Your task to perform on an android device: star an email in the gmail app Image 0: 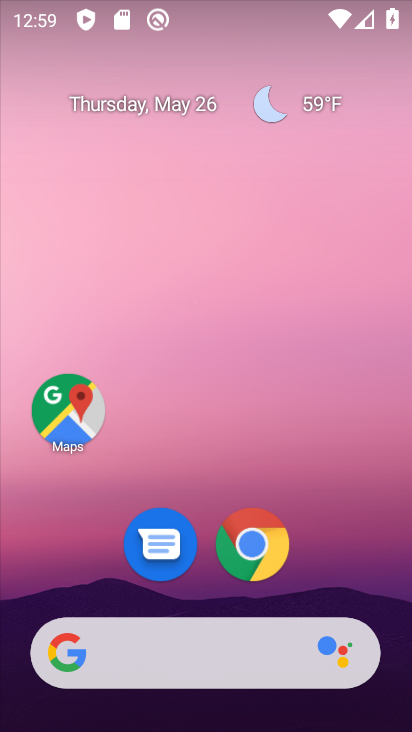
Step 0: drag from (188, 600) to (227, 233)
Your task to perform on an android device: star an email in the gmail app Image 1: 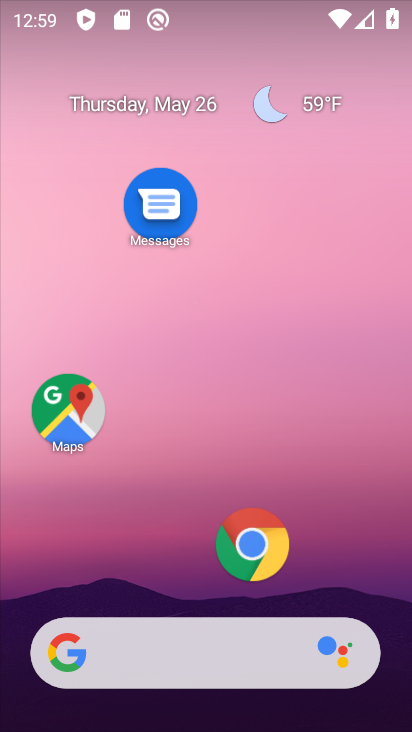
Step 1: drag from (160, 581) to (219, 224)
Your task to perform on an android device: star an email in the gmail app Image 2: 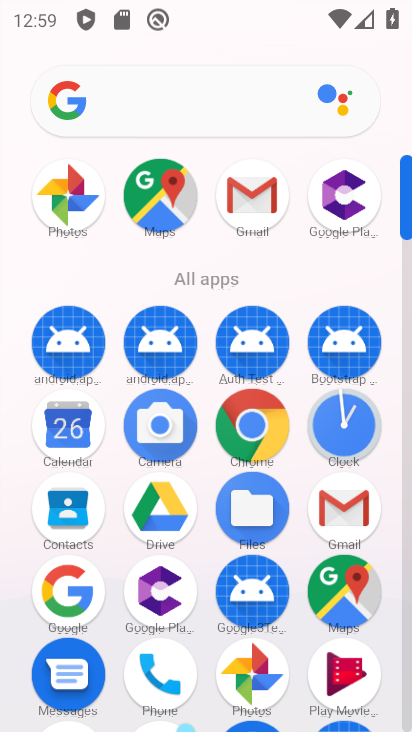
Step 2: click (257, 190)
Your task to perform on an android device: star an email in the gmail app Image 3: 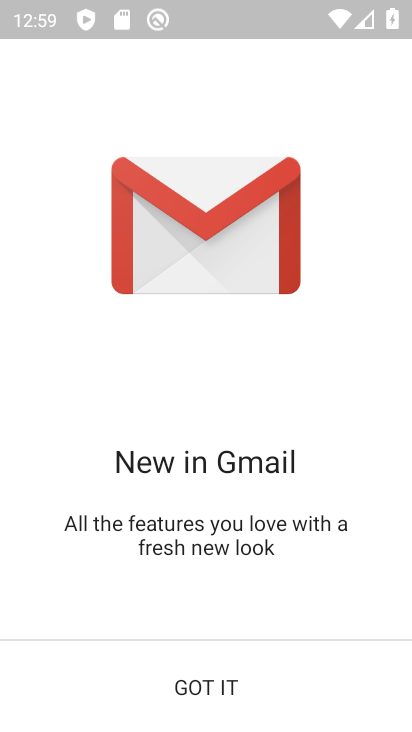
Step 3: click (257, 727)
Your task to perform on an android device: star an email in the gmail app Image 4: 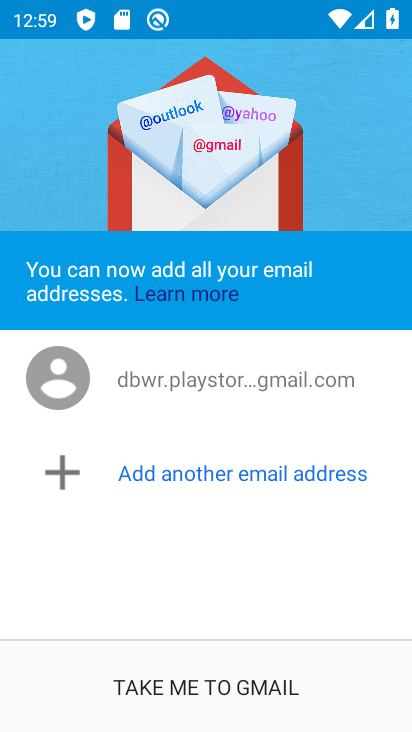
Step 4: click (236, 707)
Your task to perform on an android device: star an email in the gmail app Image 5: 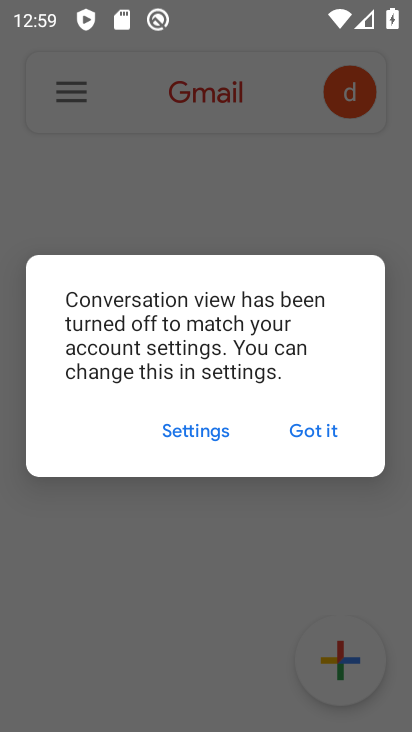
Step 5: click (316, 450)
Your task to perform on an android device: star an email in the gmail app Image 6: 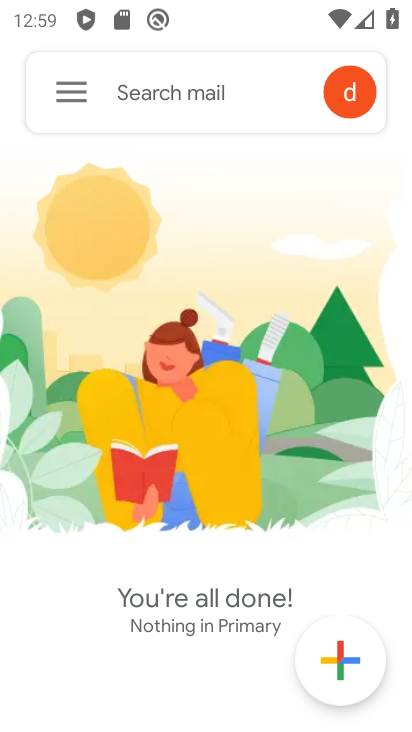
Step 6: task complete